Your task to perform on an android device: What is the news today? Image 0: 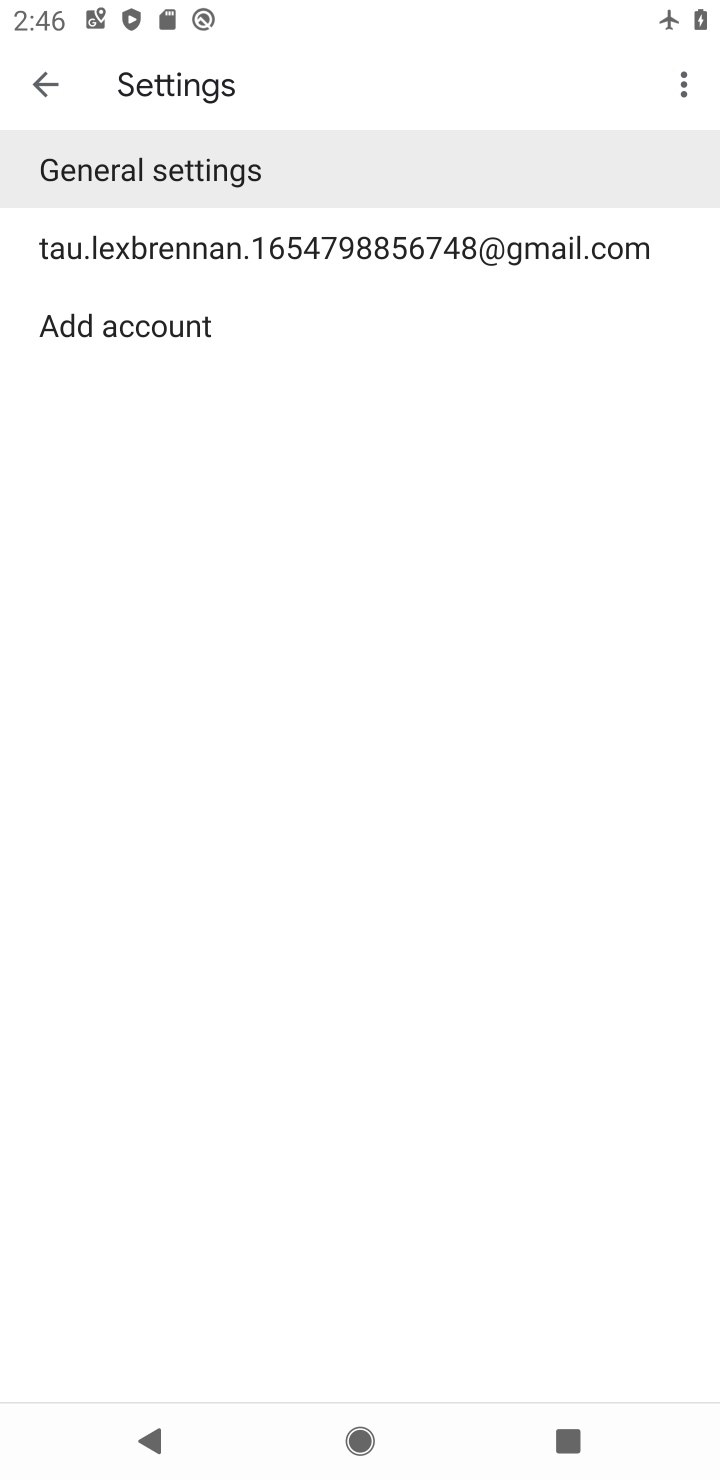
Step 0: press home button
Your task to perform on an android device: What is the news today? Image 1: 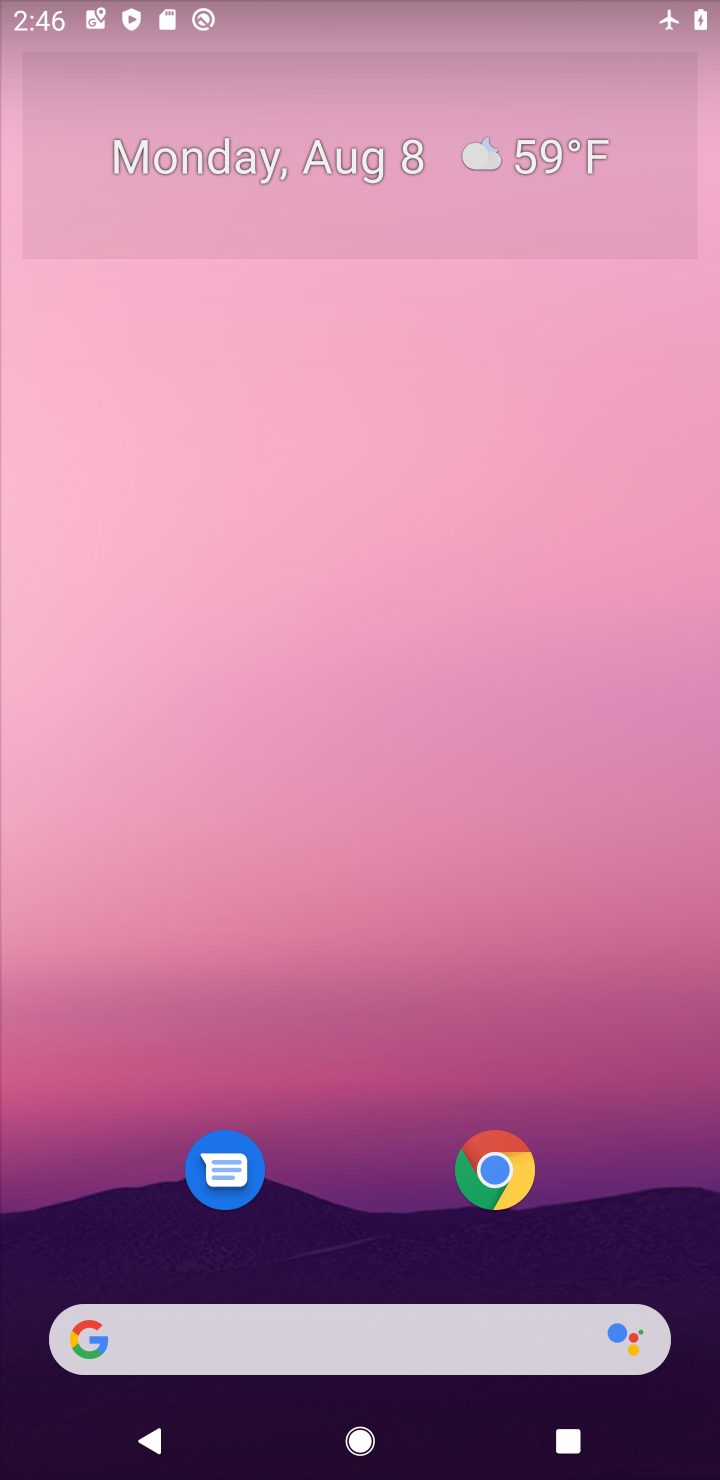
Step 1: drag from (360, 1186) to (353, 301)
Your task to perform on an android device: What is the news today? Image 2: 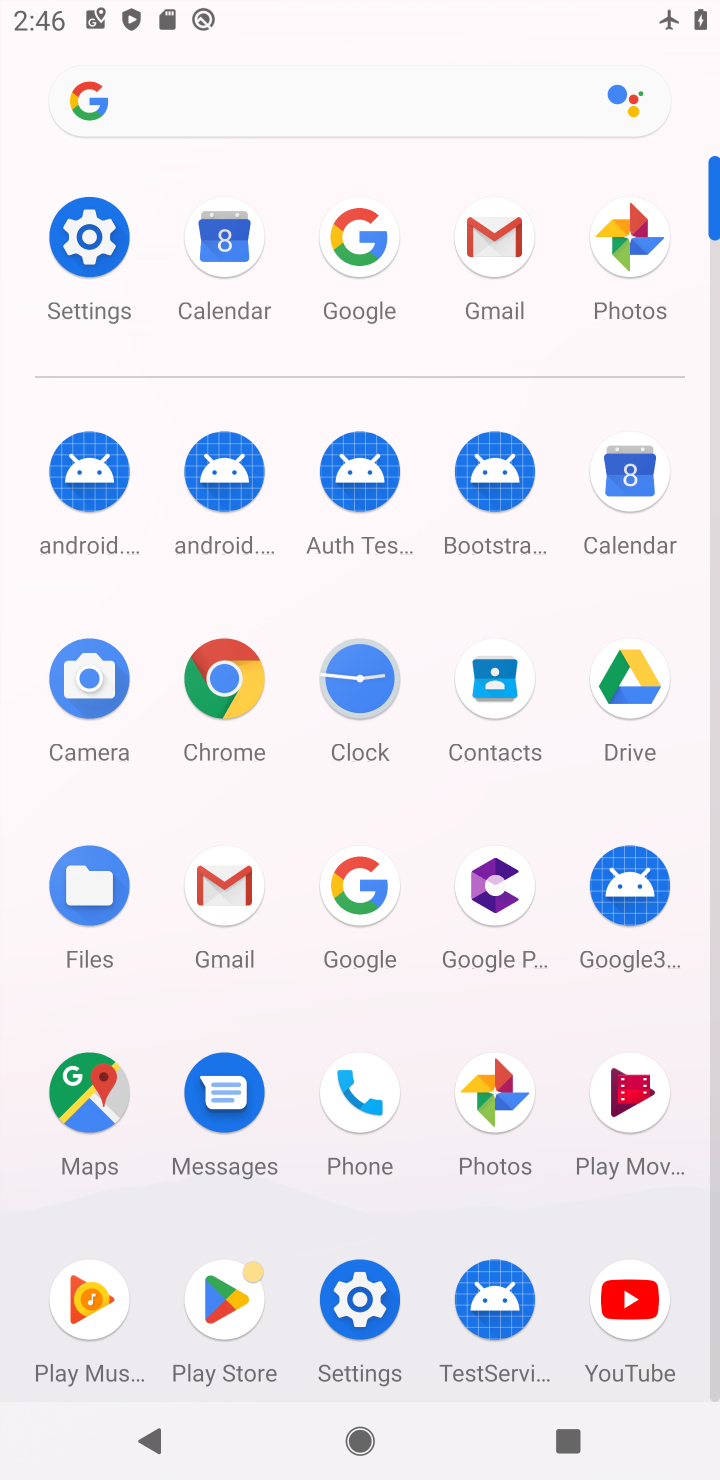
Step 2: click (383, 891)
Your task to perform on an android device: What is the news today? Image 3: 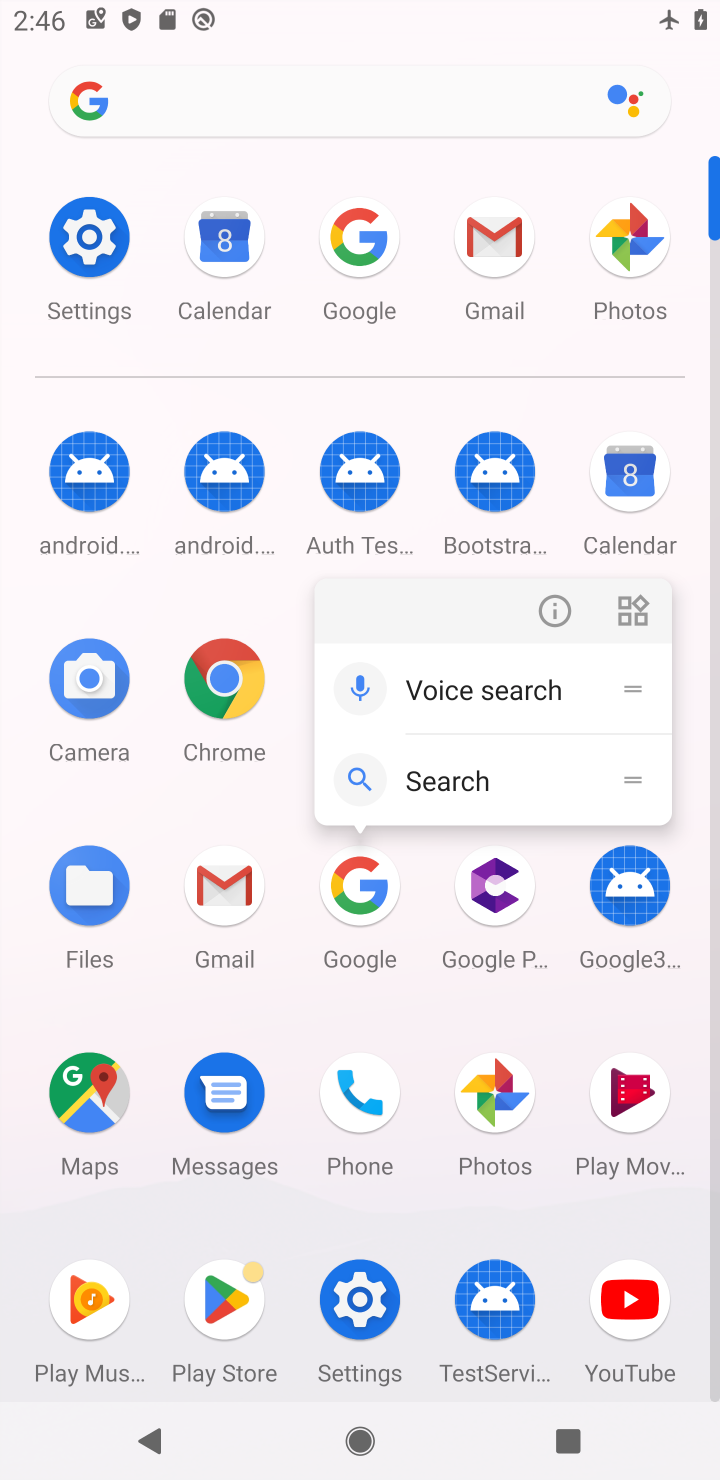
Step 3: click (383, 891)
Your task to perform on an android device: What is the news today? Image 4: 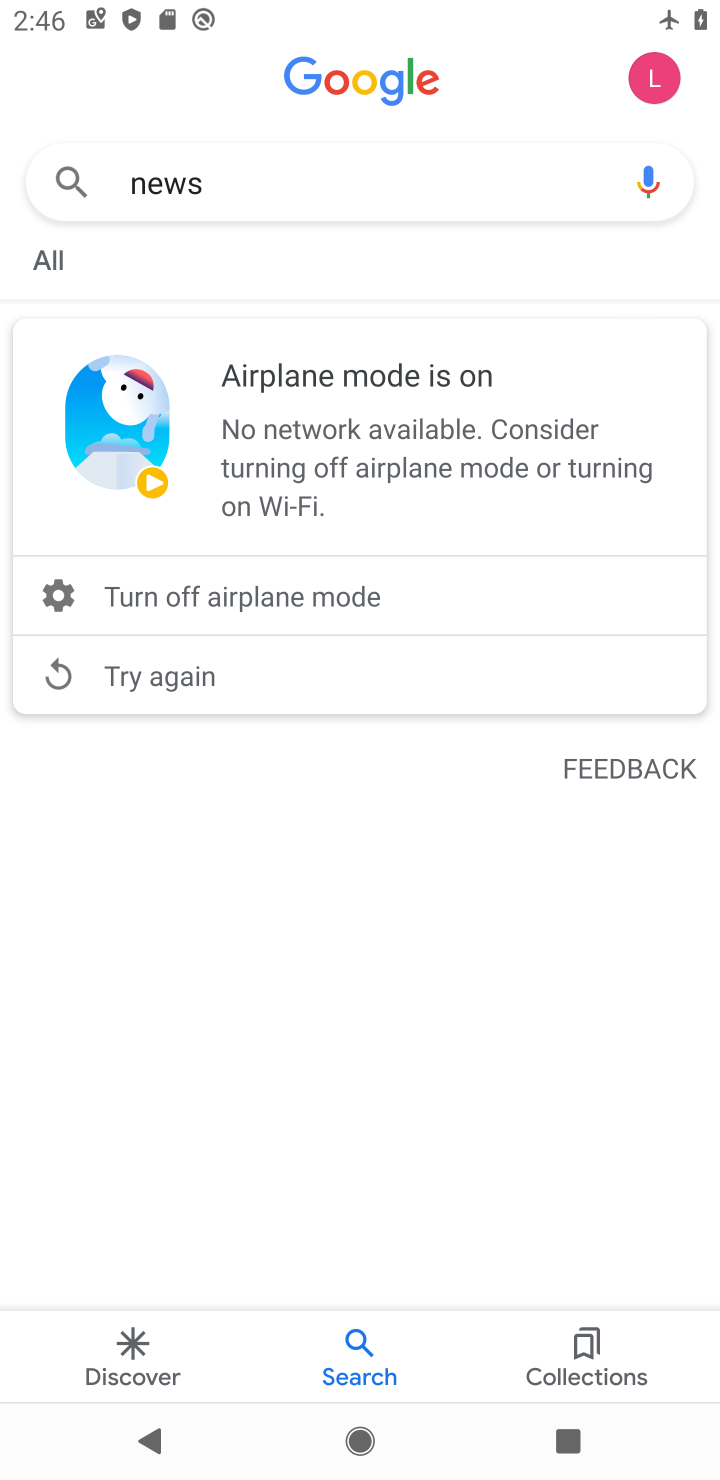
Step 4: task complete